Your task to perform on an android device: find snoozed emails in the gmail app Image 0: 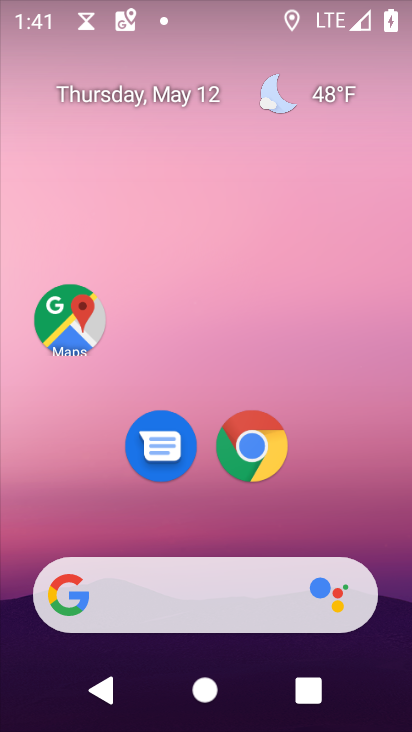
Step 0: drag from (322, 213) to (314, 0)
Your task to perform on an android device: find snoozed emails in the gmail app Image 1: 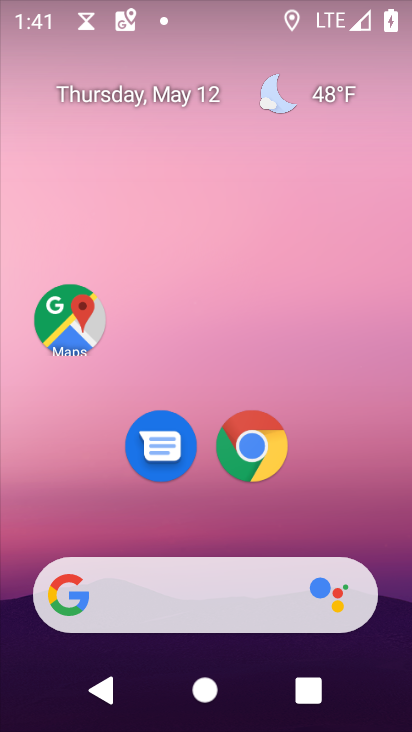
Step 1: drag from (309, 503) to (281, 14)
Your task to perform on an android device: find snoozed emails in the gmail app Image 2: 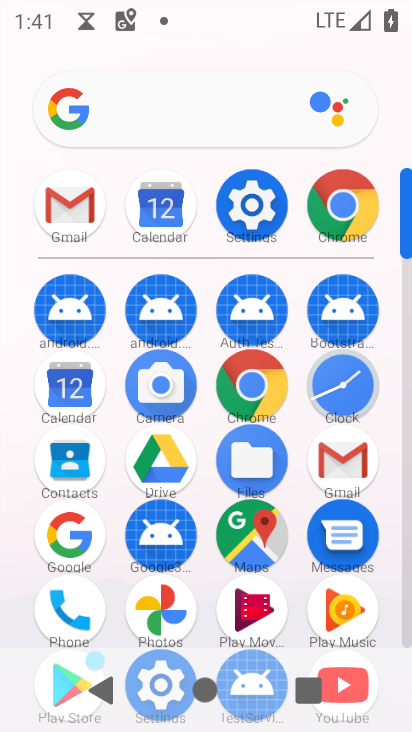
Step 2: click (68, 203)
Your task to perform on an android device: find snoozed emails in the gmail app Image 3: 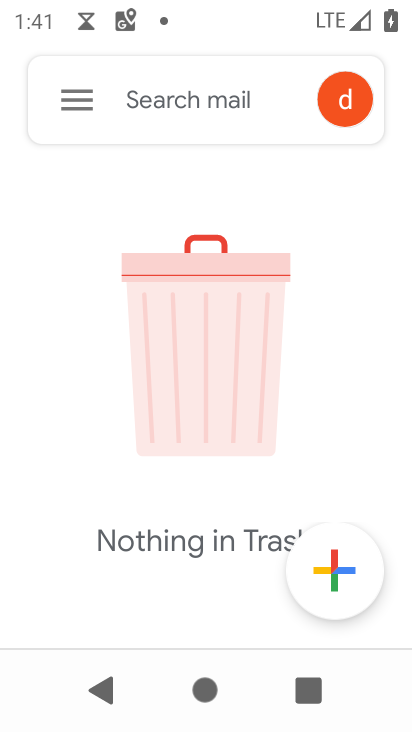
Step 3: click (83, 109)
Your task to perform on an android device: find snoozed emails in the gmail app Image 4: 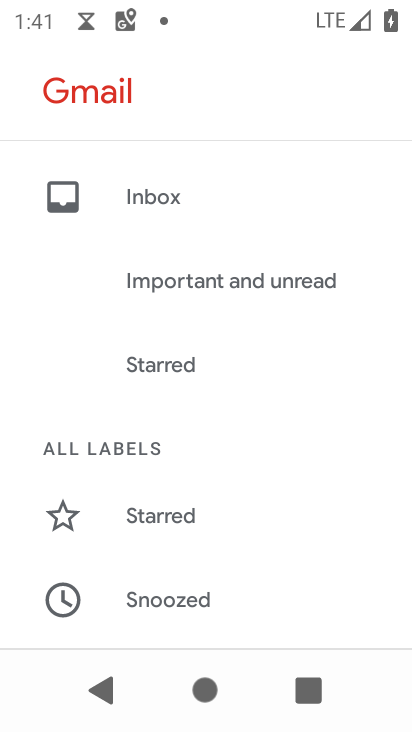
Step 4: drag from (282, 552) to (280, 26)
Your task to perform on an android device: find snoozed emails in the gmail app Image 5: 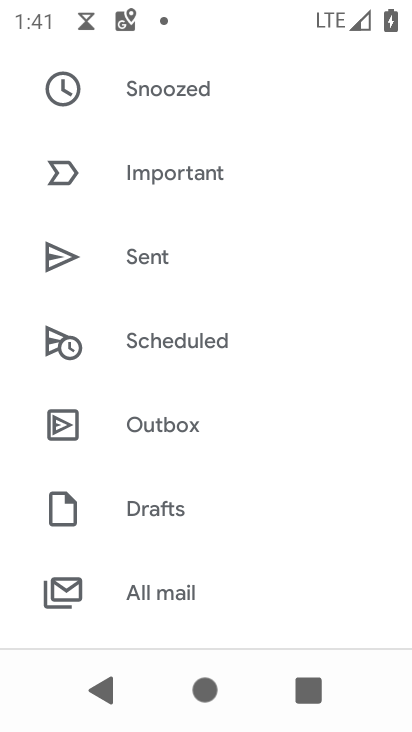
Step 5: drag from (267, 591) to (264, 157)
Your task to perform on an android device: find snoozed emails in the gmail app Image 6: 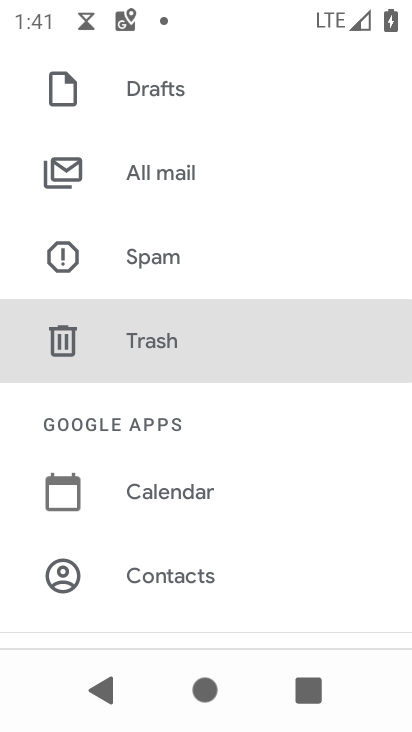
Step 6: drag from (269, 132) to (269, 653)
Your task to perform on an android device: find snoozed emails in the gmail app Image 7: 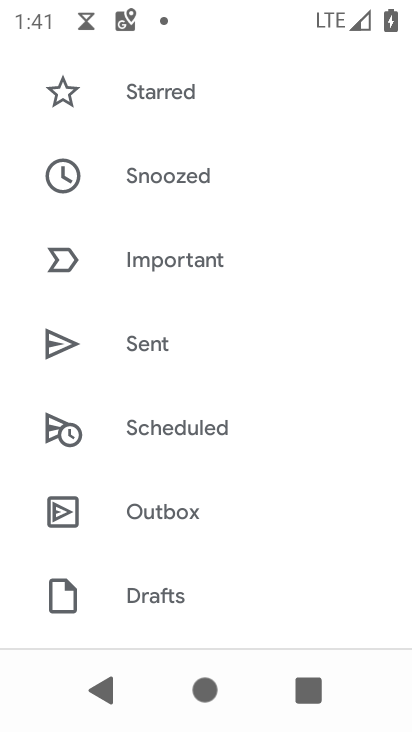
Step 7: click (209, 171)
Your task to perform on an android device: find snoozed emails in the gmail app Image 8: 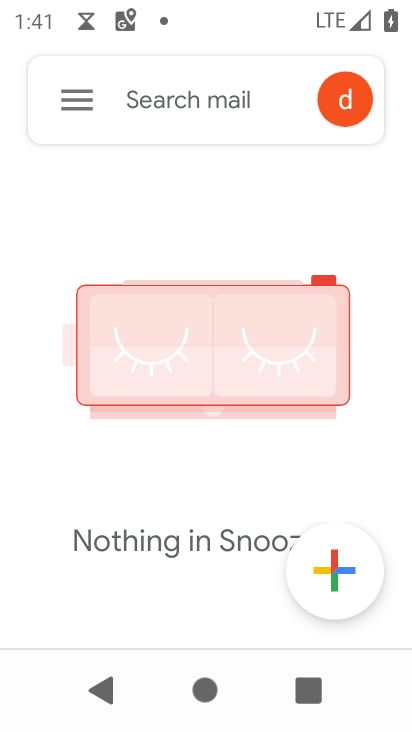
Step 8: task complete